Your task to perform on an android device: Open notification settings Image 0: 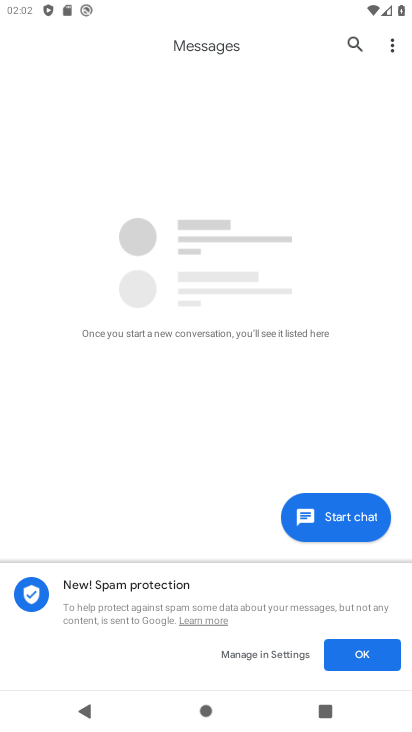
Step 0: press home button
Your task to perform on an android device: Open notification settings Image 1: 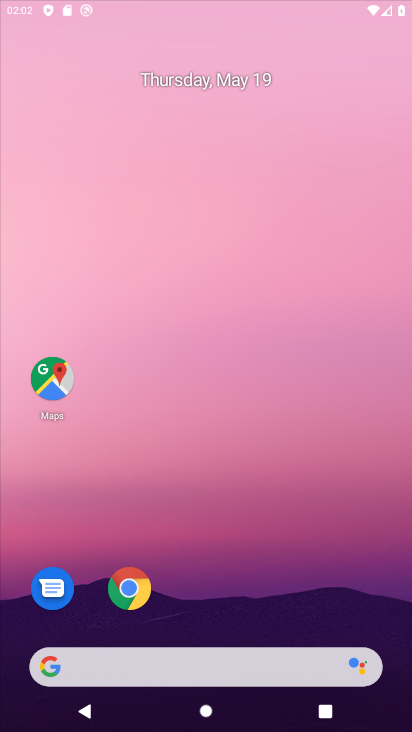
Step 1: drag from (202, 591) to (263, 42)
Your task to perform on an android device: Open notification settings Image 2: 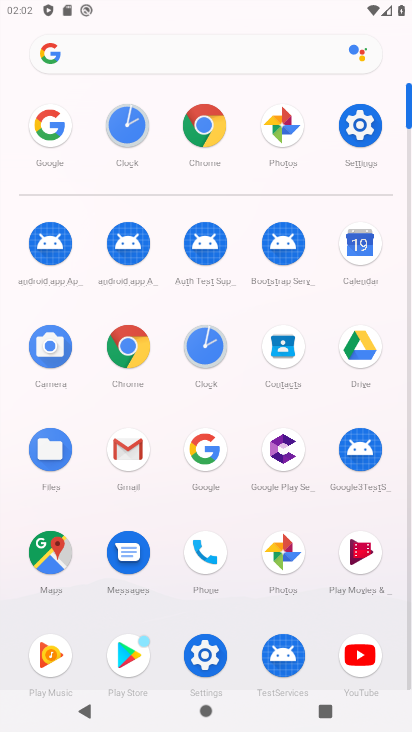
Step 2: click (358, 121)
Your task to perform on an android device: Open notification settings Image 3: 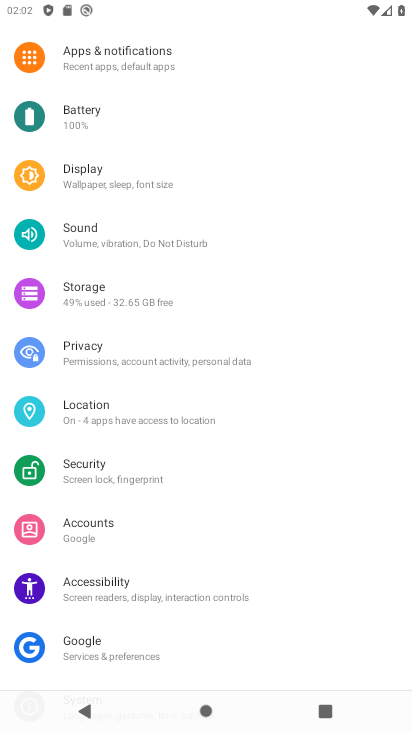
Step 3: click (114, 62)
Your task to perform on an android device: Open notification settings Image 4: 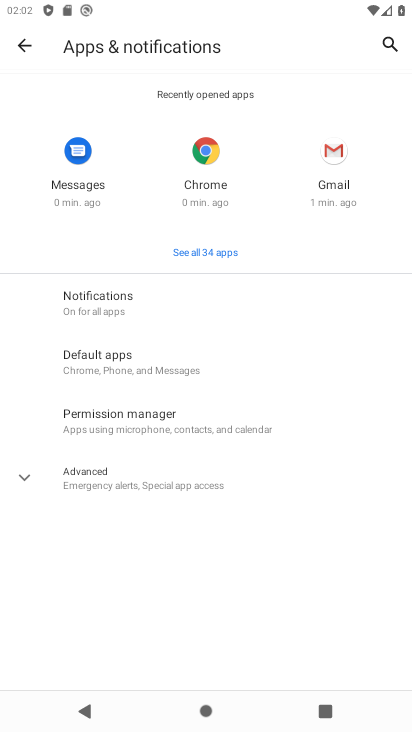
Step 4: click (113, 304)
Your task to perform on an android device: Open notification settings Image 5: 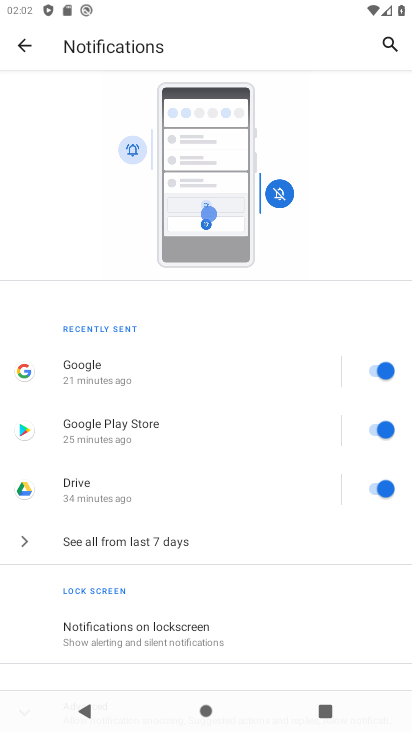
Step 5: task complete